Your task to perform on an android device: snooze an email in the gmail app Image 0: 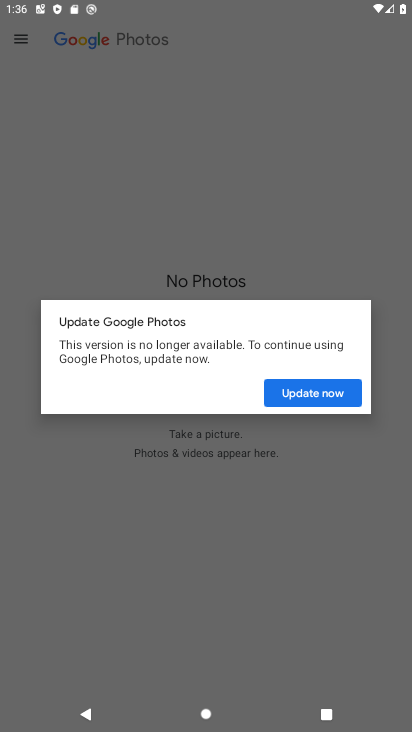
Step 0: press home button
Your task to perform on an android device: snooze an email in the gmail app Image 1: 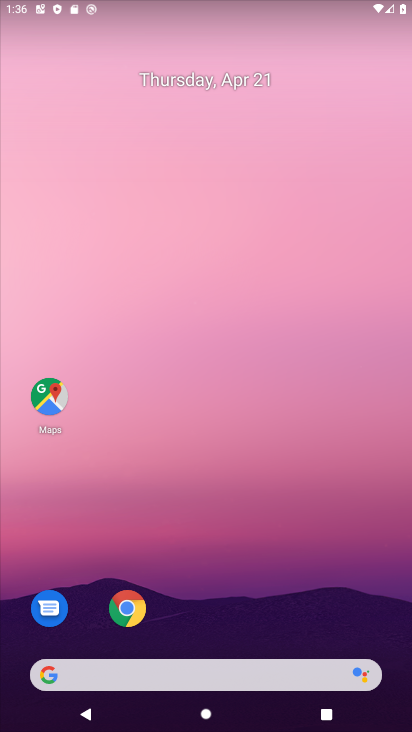
Step 1: drag from (224, 544) to (321, 142)
Your task to perform on an android device: snooze an email in the gmail app Image 2: 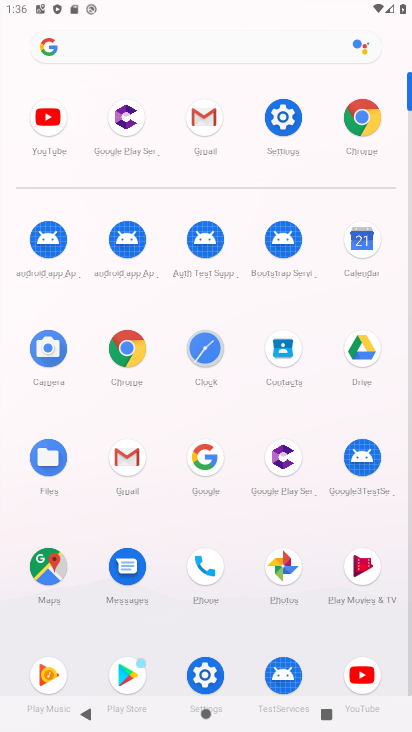
Step 2: click (216, 99)
Your task to perform on an android device: snooze an email in the gmail app Image 3: 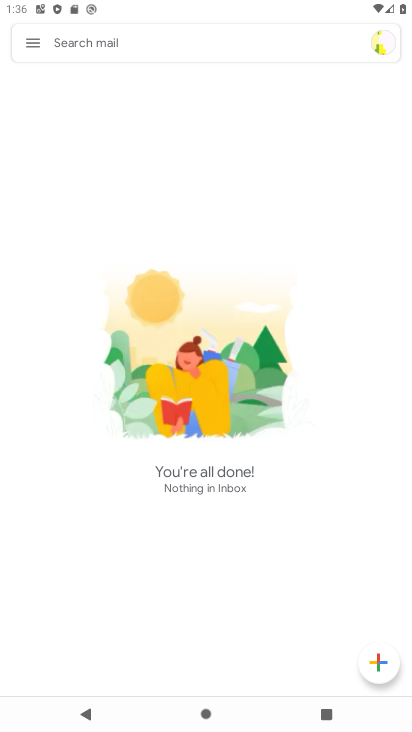
Step 3: click (28, 38)
Your task to perform on an android device: snooze an email in the gmail app Image 4: 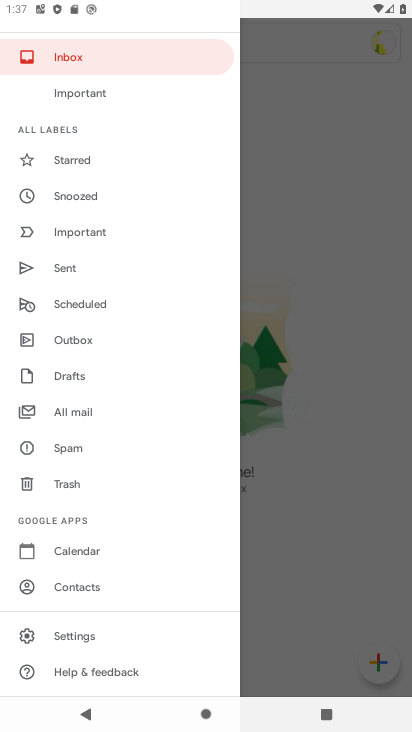
Step 4: click (81, 63)
Your task to perform on an android device: snooze an email in the gmail app Image 5: 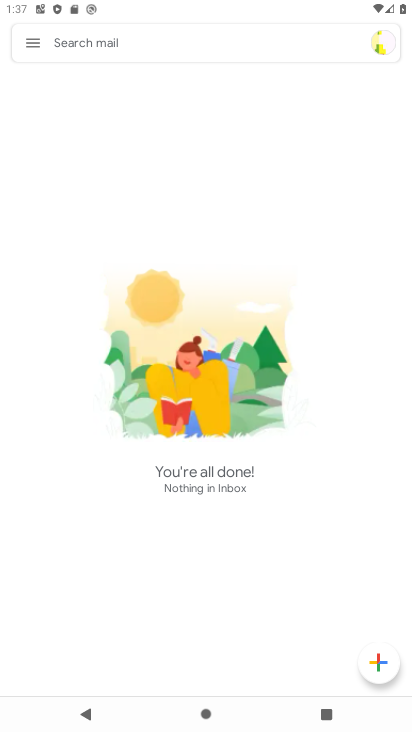
Step 5: task complete